Your task to perform on an android device: empty trash in the gmail app Image 0: 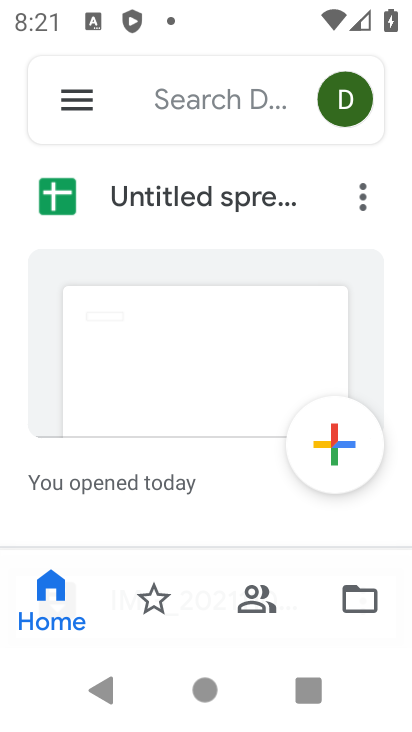
Step 0: press home button
Your task to perform on an android device: empty trash in the gmail app Image 1: 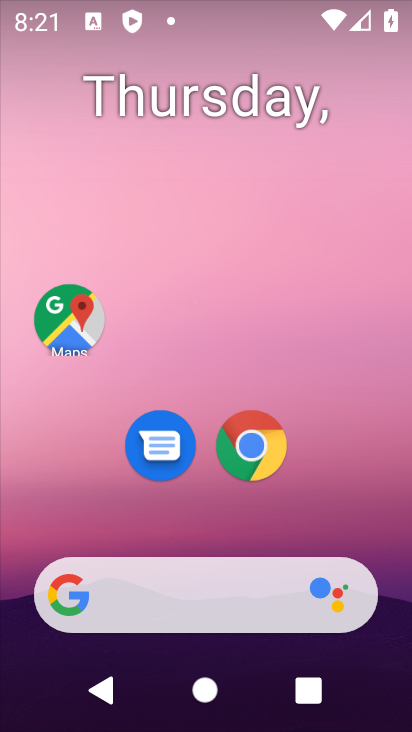
Step 1: drag from (6, 577) to (232, 191)
Your task to perform on an android device: empty trash in the gmail app Image 2: 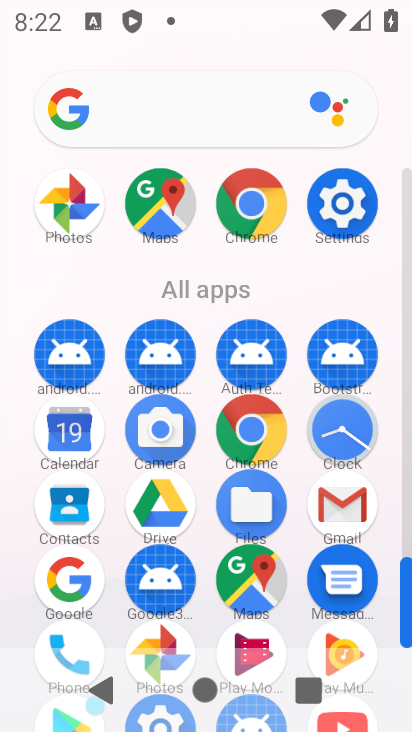
Step 2: click (355, 504)
Your task to perform on an android device: empty trash in the gmail app Image 3: 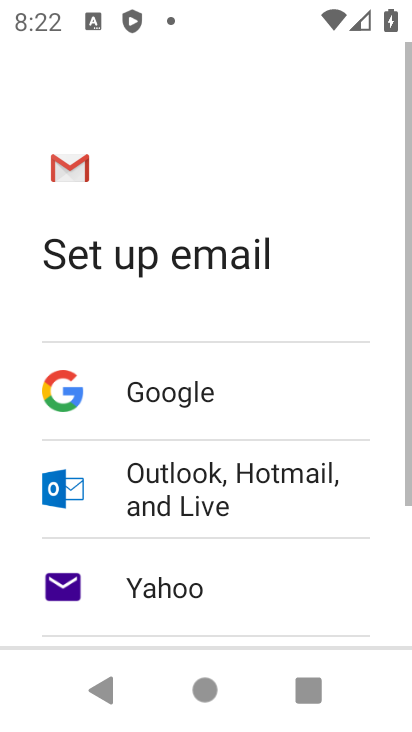
Step 3: press back button
Your task to perform on an android device: empty trash in the gmail app Image 4: 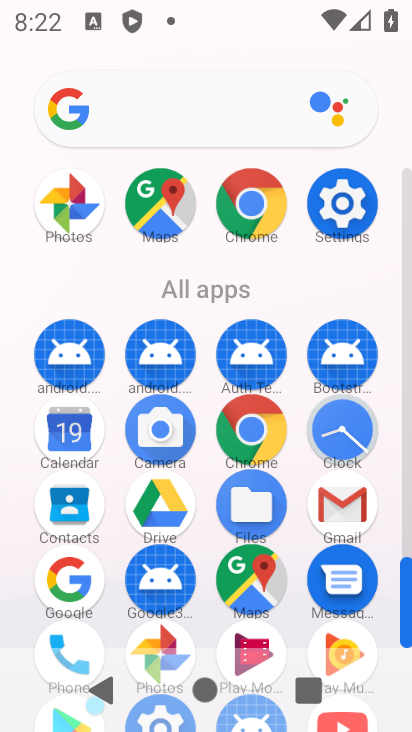
Step 4: click (334, 506)
Your task to perform on an android device: empty trash in the gmail app Image 5: 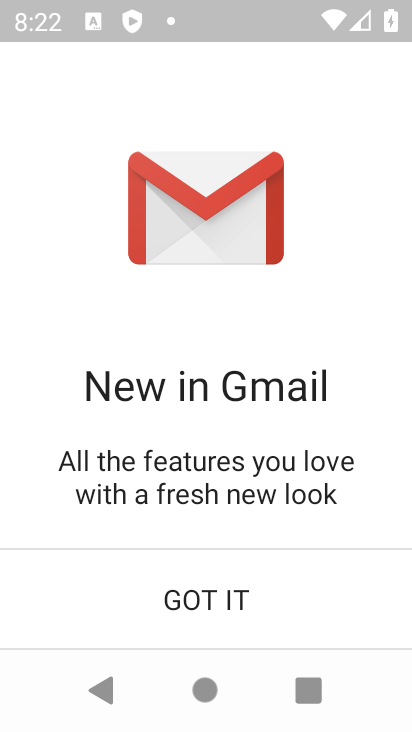
Step 5: click (235, 605)
Your task to perform on an android device: empty trash in the gmail app Image 6: 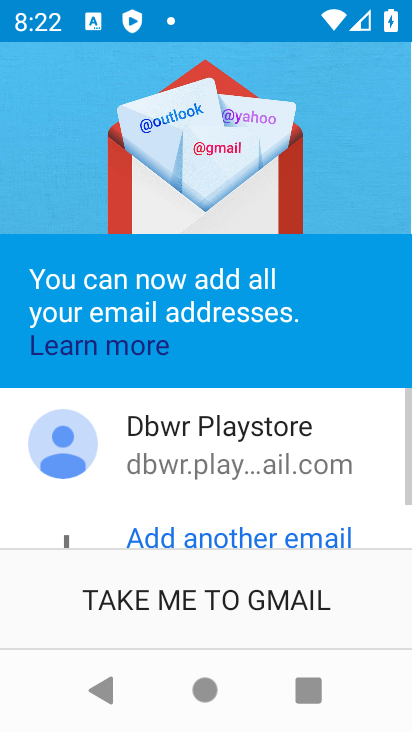
Step 6: click (148, 587)
Your task to perform on an android device: empty trash in the gmail app Image 7: 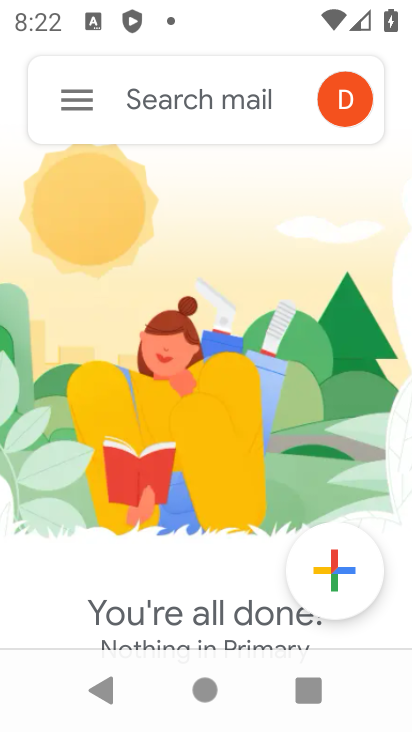
Step 7: click (68, 100)
Your task to perform on an android device: empty trash in the gmail app Image 8: 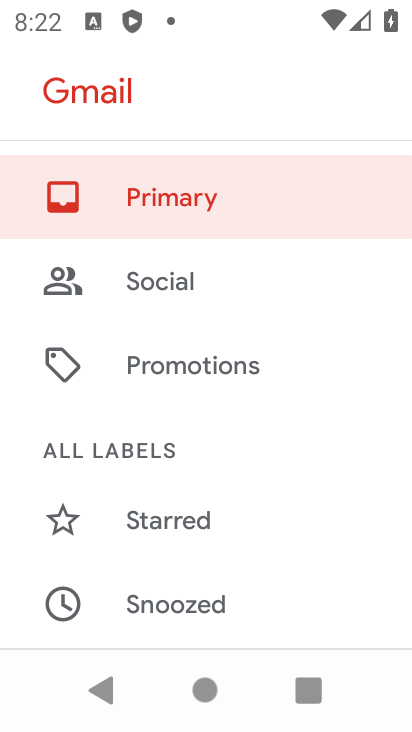
Step 8: drag from (24, 572) to (251, 248)
Your task to perform on an android device: empty trash in the gmail app Image 9: 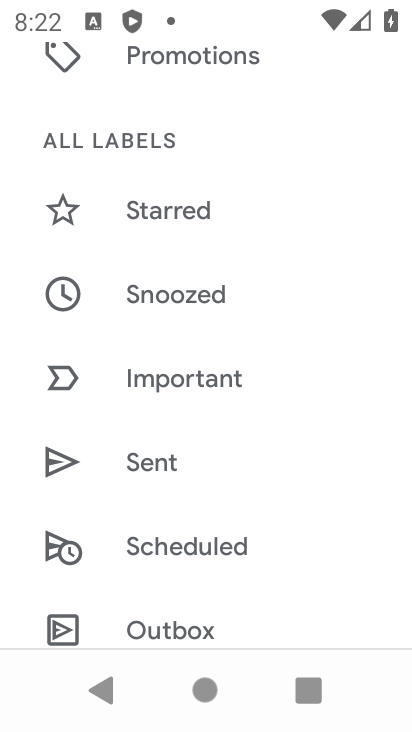
Step 9: drag from (76, 539) to (251, 201)
Your task to perform on an android device: empty trash in the gmail app Image 10: 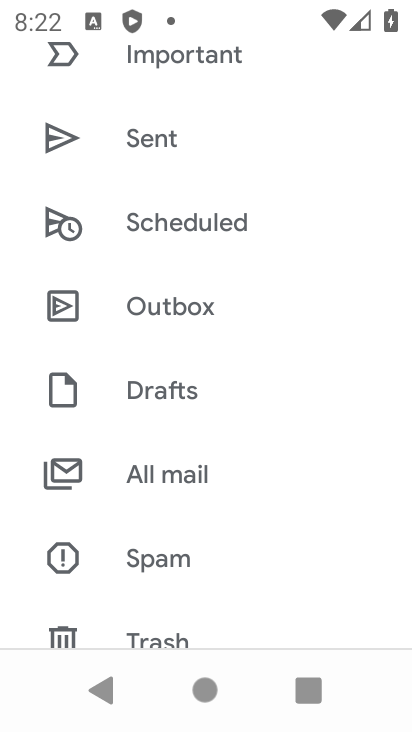
Step 10: click (102, 634)
Your task to perform on an android device: empty trash in the gmail app Image 11: 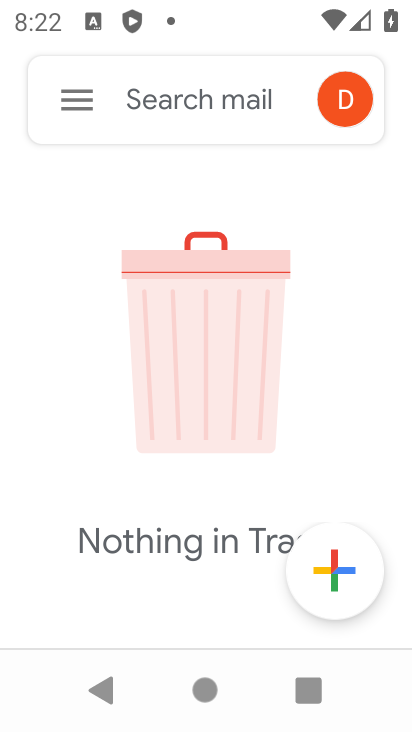
Step 11: task complete